Your task to perform on an android device: Open CNN.com Image 0: 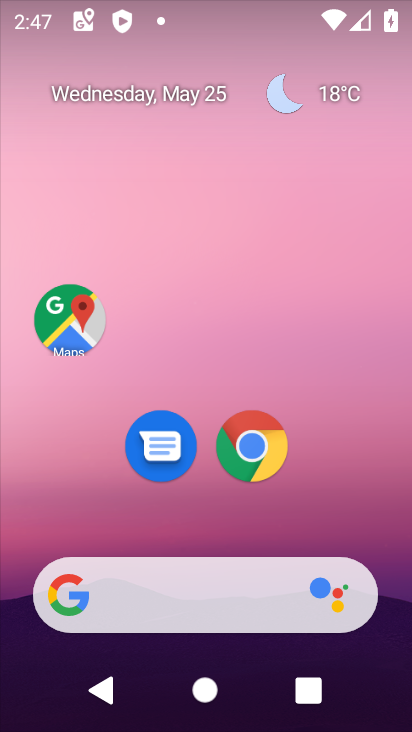
Step 0: click (237, 446)
Your task to perform on an android device: Open CNN.com Image 1: 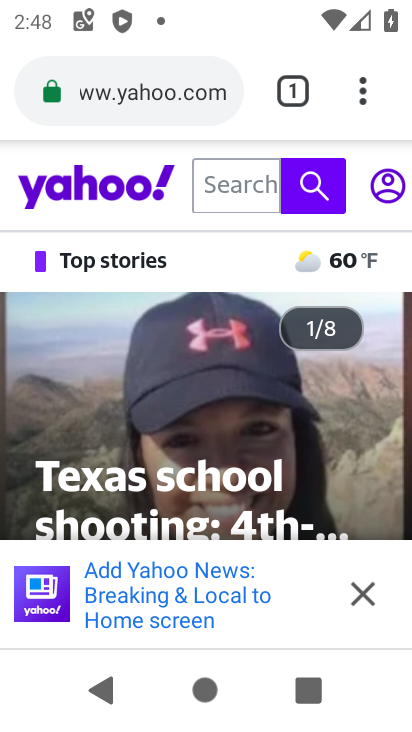
Step 1: click (175, 111)
Your task to perform on an android device: Open CNN.com Image 2: 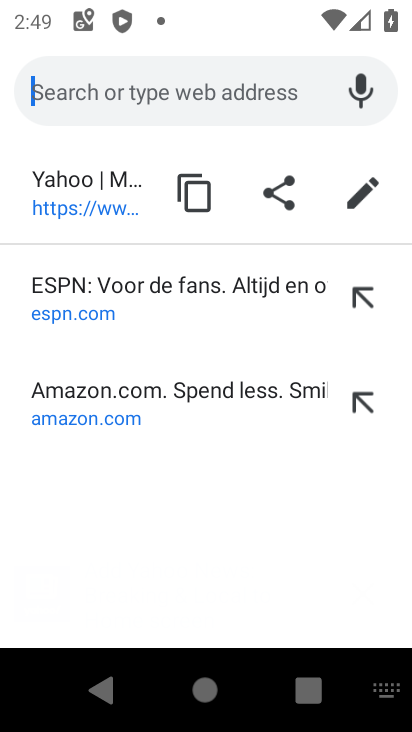
Step 2: click (183, 89)
Your task to perform on an android device: Open CNN.com Image 3: 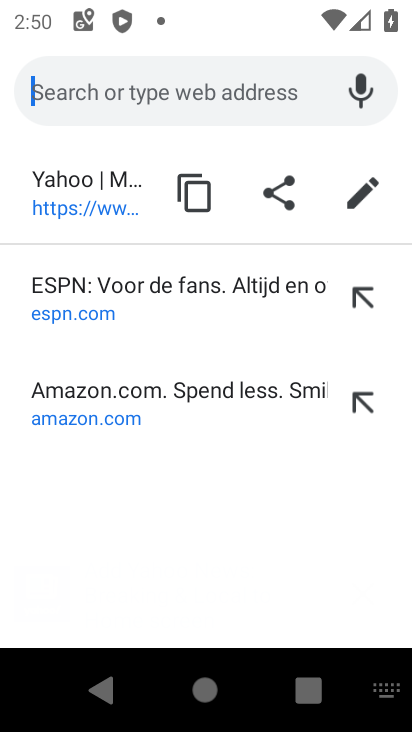
Step 3: type "cnn.com"
Your task to perform on an android device: Open CNN.com Image 4: 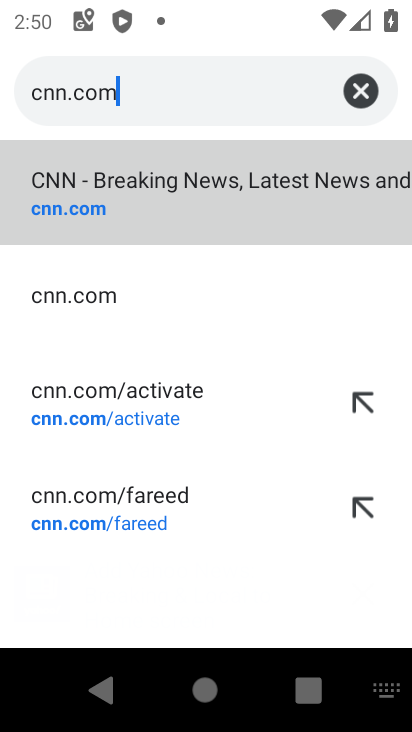
Step 4: click (328, 177)
Your task to perform on an android device: Open CNN.com Image 5: 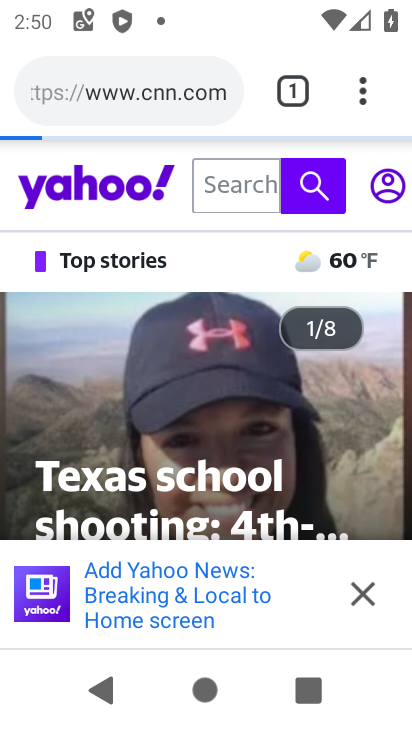
Step 5: task complete